Your task to perform on an android device: Show me popular games on the Play Store Image 0: 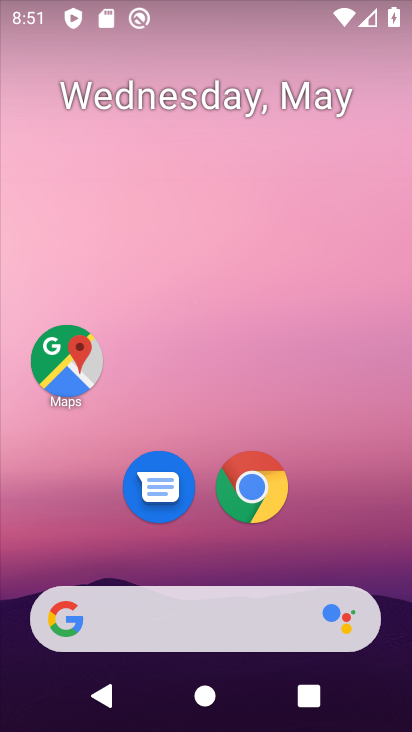
Step 0: drag from (62, 578) to (212, 3)
Your task to perform on an android device: Show me popular games on the Play Store Image 1: 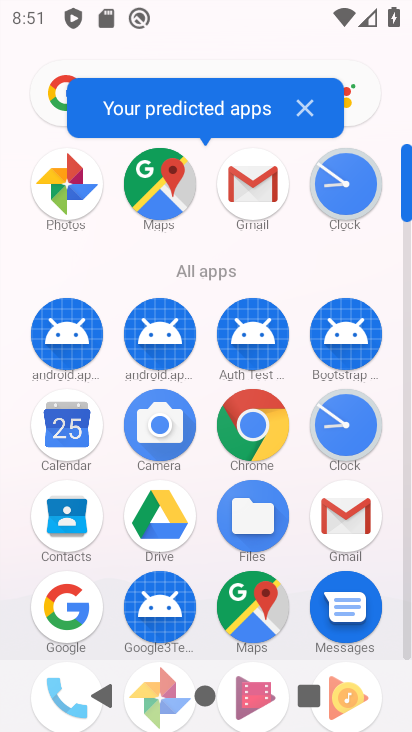
Step 1: drag from (120, 661) to (220, 326)
Your task to perform on an android device: Show me popular games on the Play Store Image 2: 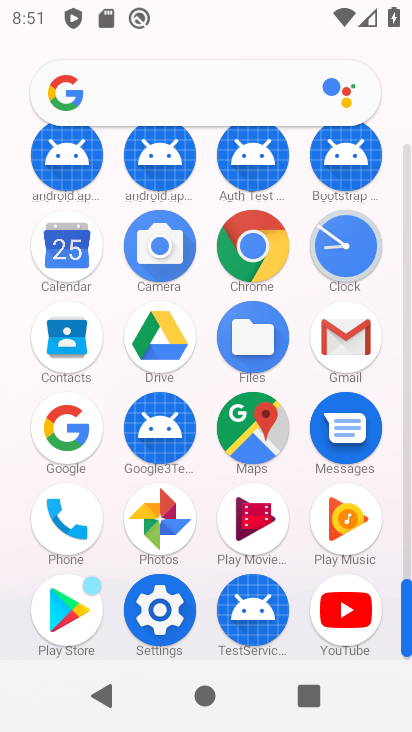
Step 2: click (73, 611)
Your task to perform on an android device: Show me popular games on the Play Store Image 3: 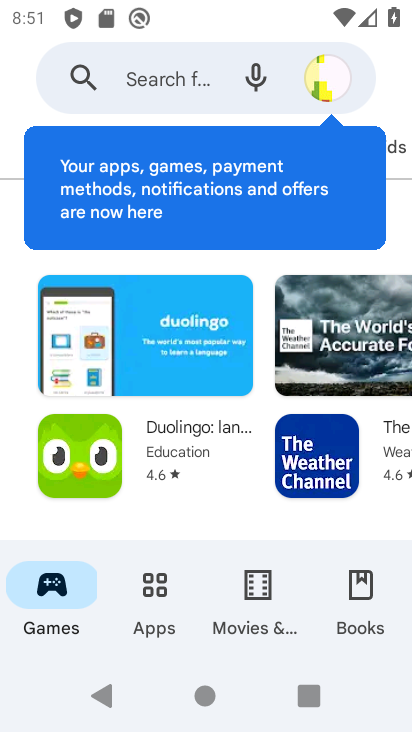
Step 3: drag from (160, 532) to (271, 95)
Your task to perform on an android device: Show me popular games on the Play Store Image 4: 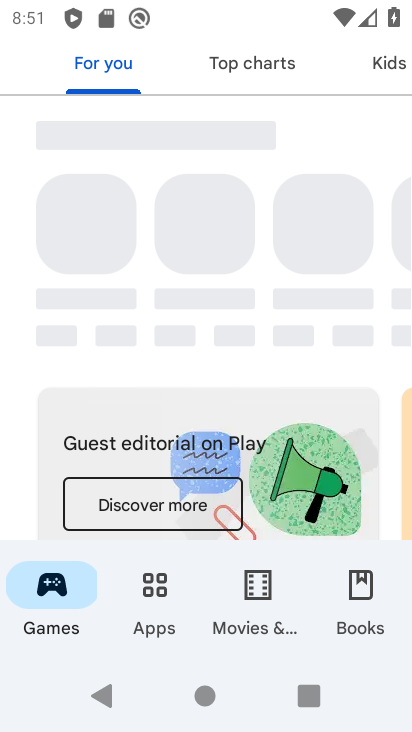
Step 4: drag from (162, 478) to (259, 112)
Your task to perform on an android device: Show me popular games on the Play Store Image 5: 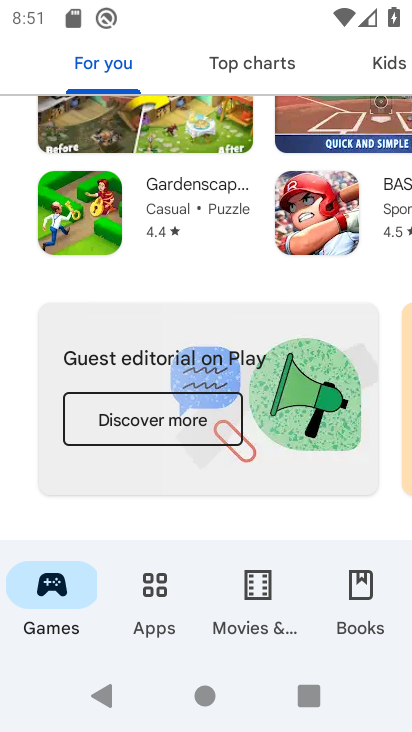
Step 5: drag from (160, 529) to (240, 175)
Your task to perform on an android device: Show me popular games on the Play Store Image 6: 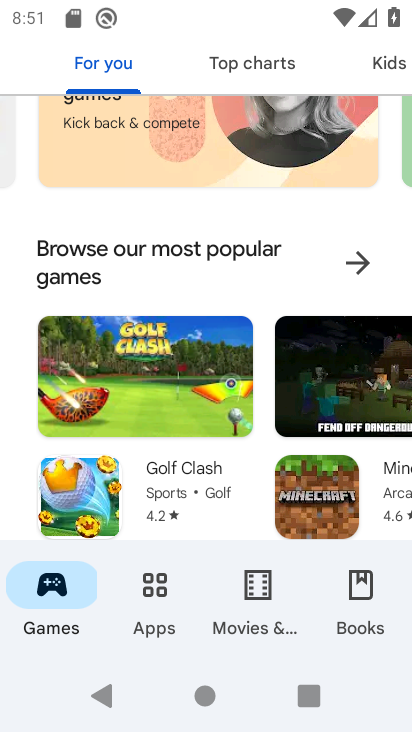
Step 6: click (364, 264)
Your task to perform on an android device: Show me popular games on the Play Store Image 7: 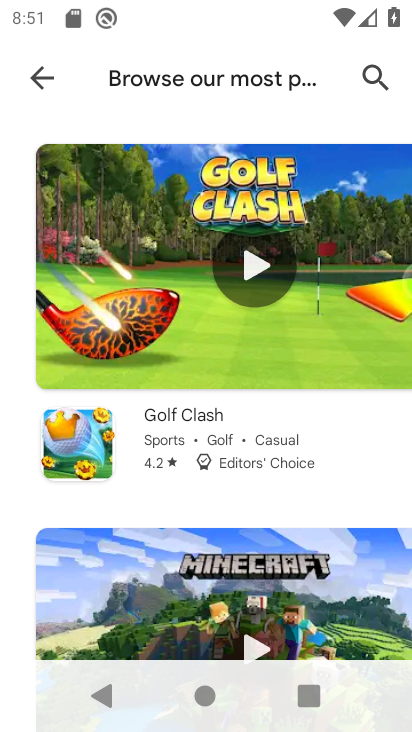
Step 7: task complete